Your task to perform on an android device: uninstall "Google Drive" Image 0: 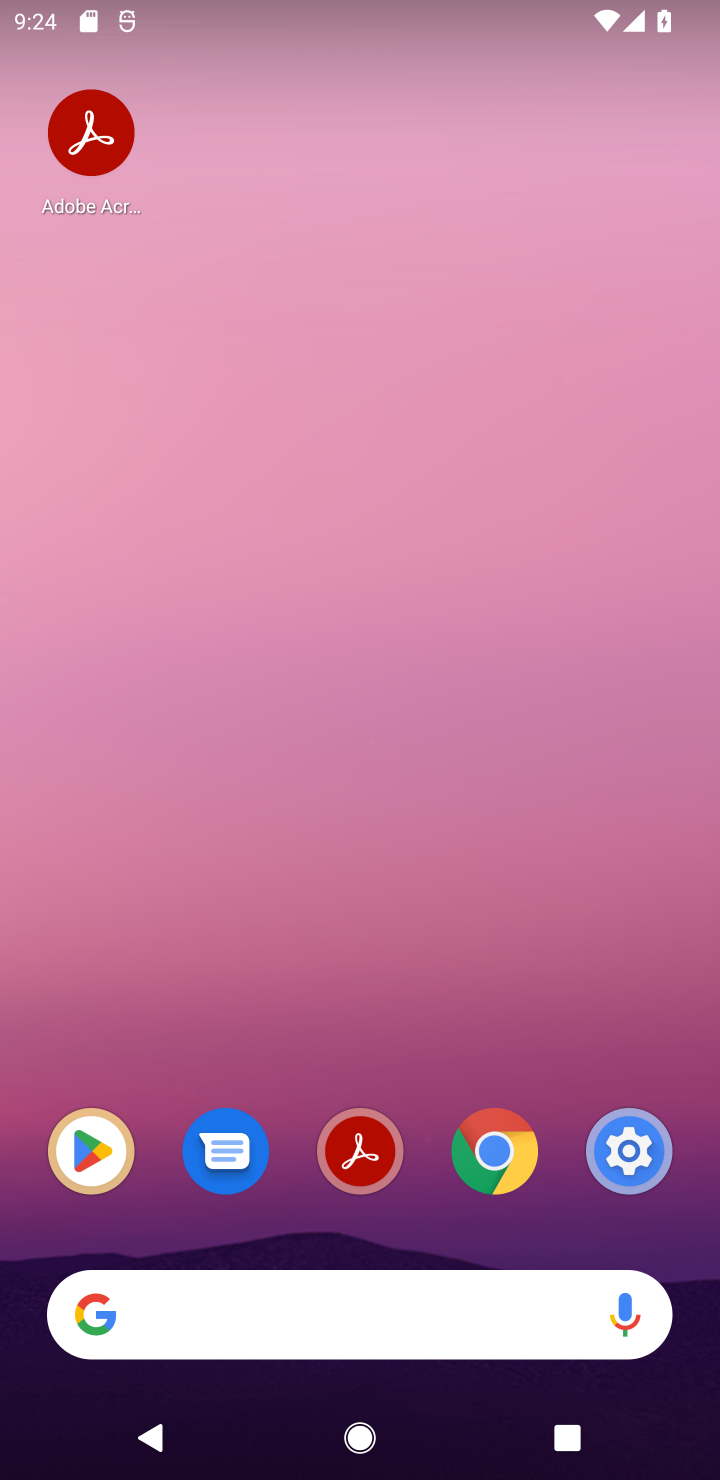
Step 0: drag from (342, 1154) to (416, 225)
Your task to perform on an android device: uninstall "Google Drive" Image 1: 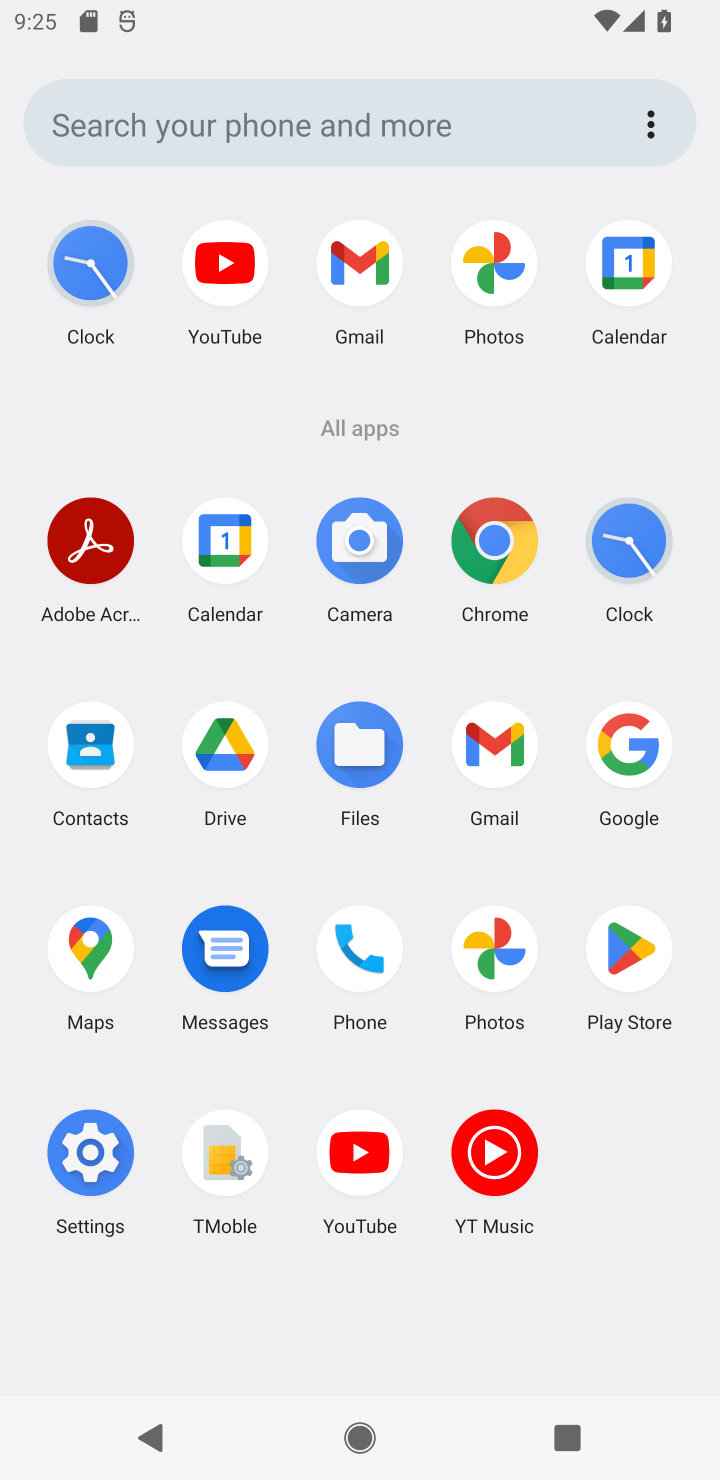
Step 1: click (618, 967)
Your task to perform on an android device: uninstall "Google Drive" Image 2: 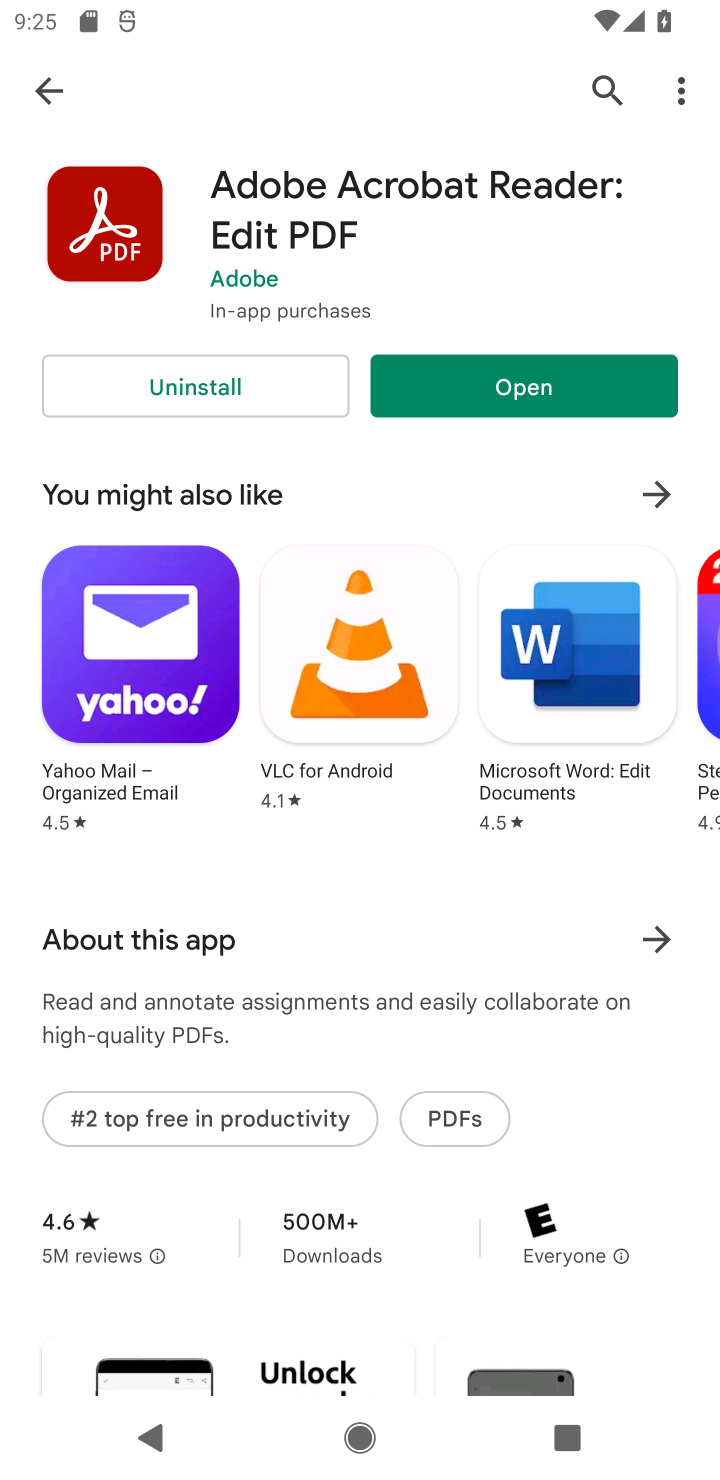
Step 2: click (36, 82)
Your task to perform on an android device: uninstall "Google Drive" Image 3: 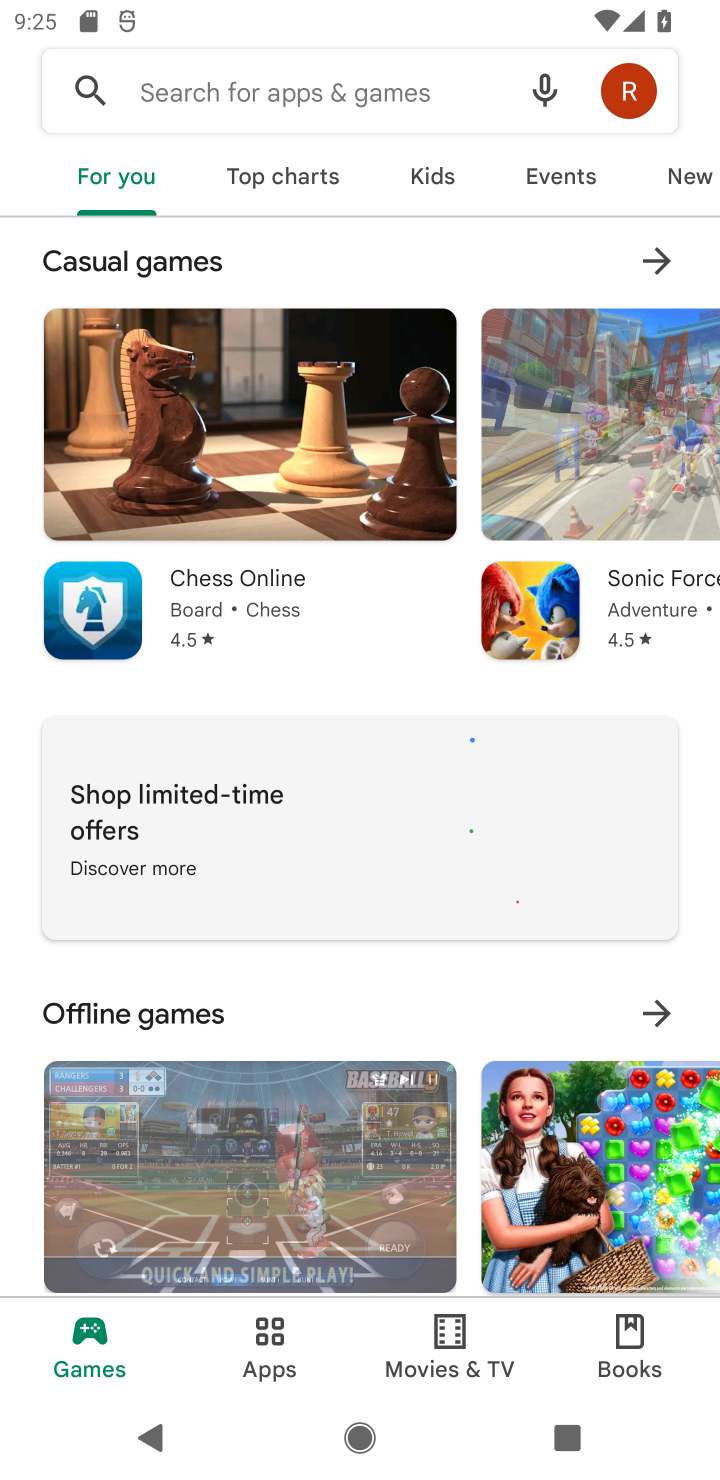
Step 3: click (366, 82)
Your task to perform on an android device: uninstall "Google Drive" Image 4: 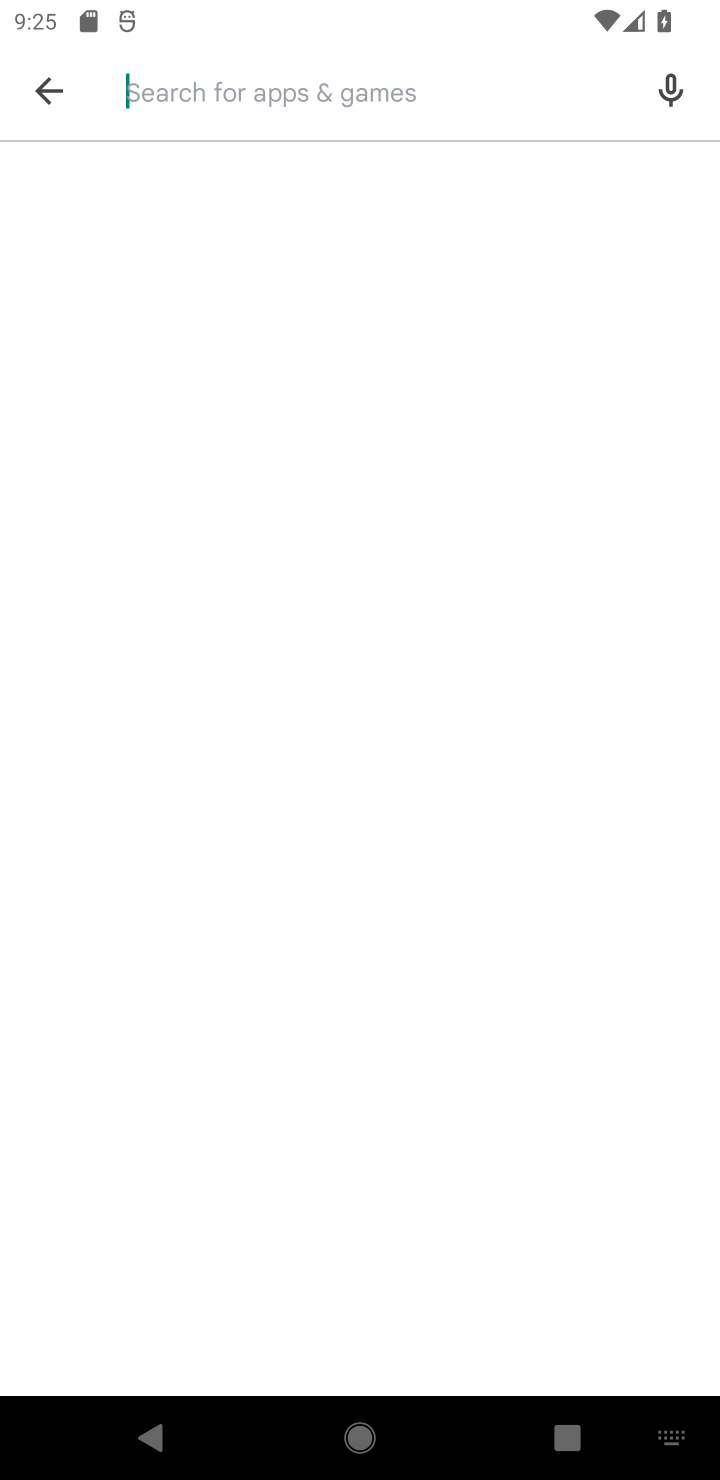
Step 4: type "Google Drive"
Your task to perform on an android device: uninstall "Google Drive" Image 5: 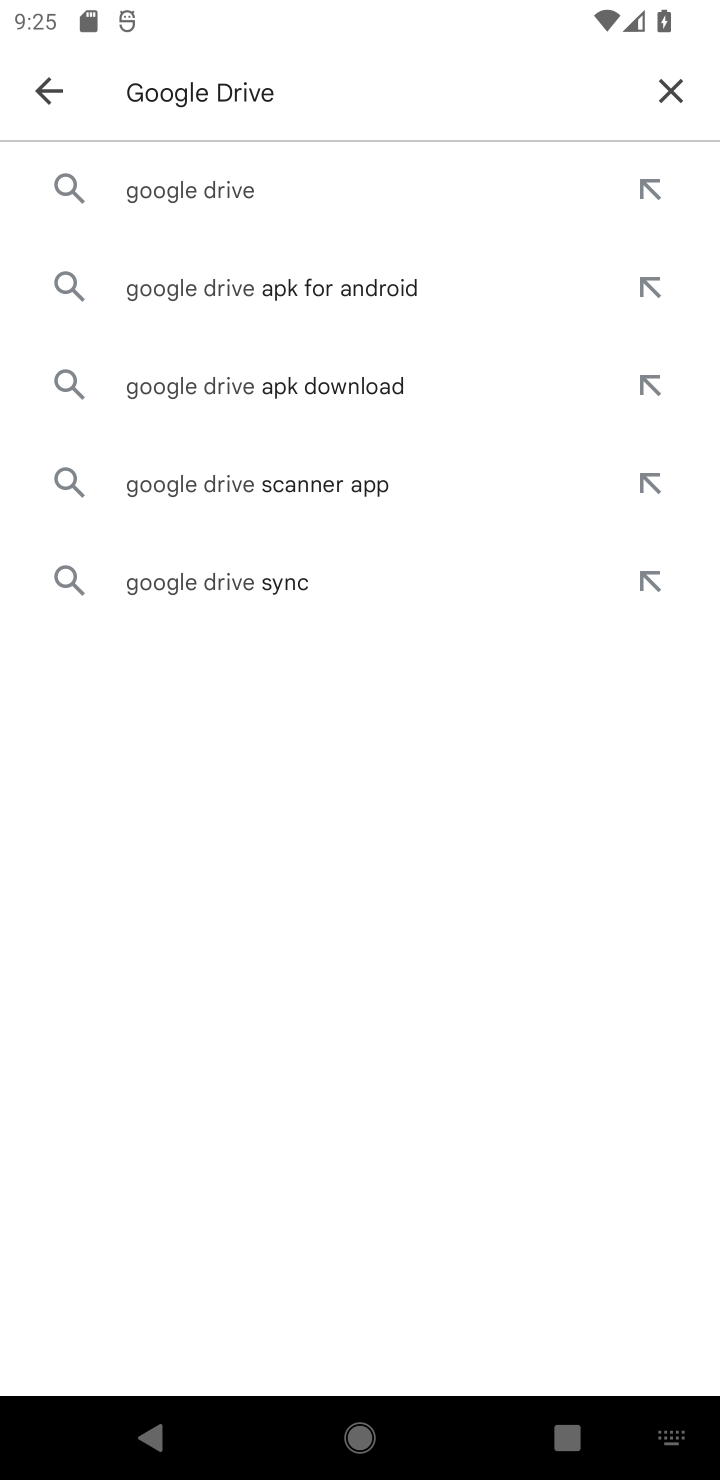
Step 5: click (235, 200)
Your task to perform on an android device: uninstall "Google Drive" Image 6: 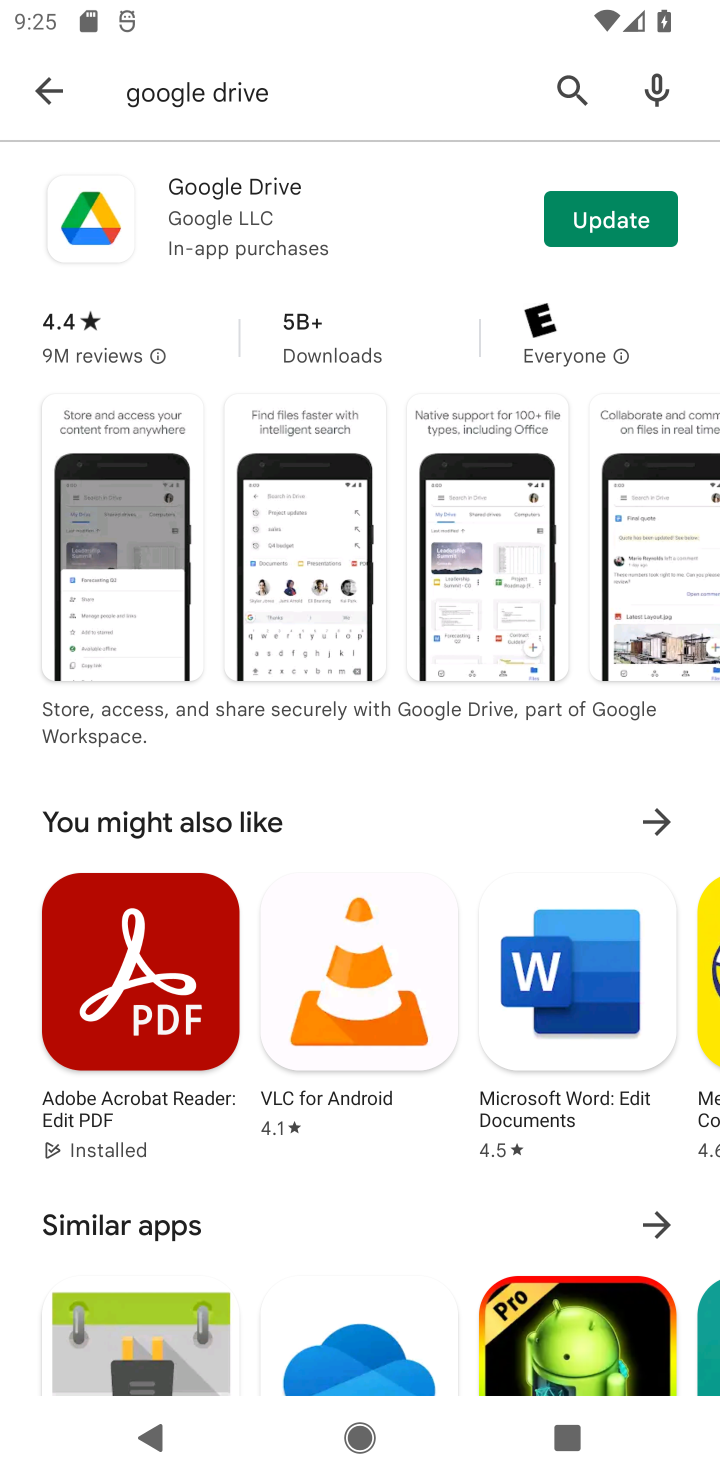
Step 6: task complete